Your task to perform on an android device: Open Maps and search for coffee Image 0: 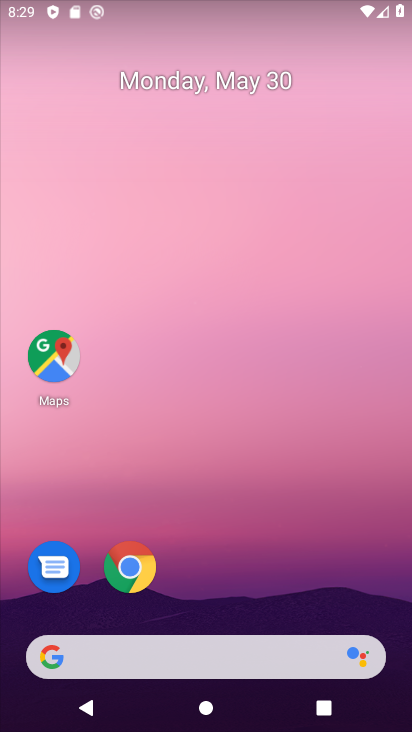
Step 0: click (45, 364)
Your task to perform on an android device: Open Maps and search for coffee Image 1: 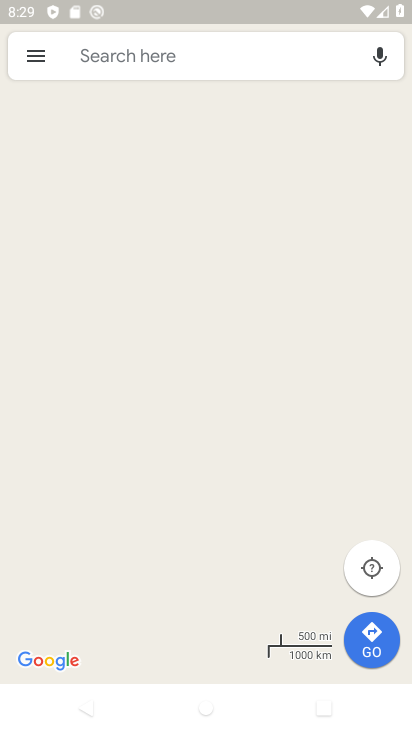
Step 1: click (216, 51)
Your task to perform on an android device: Open Maps and search for coffee Image 2: 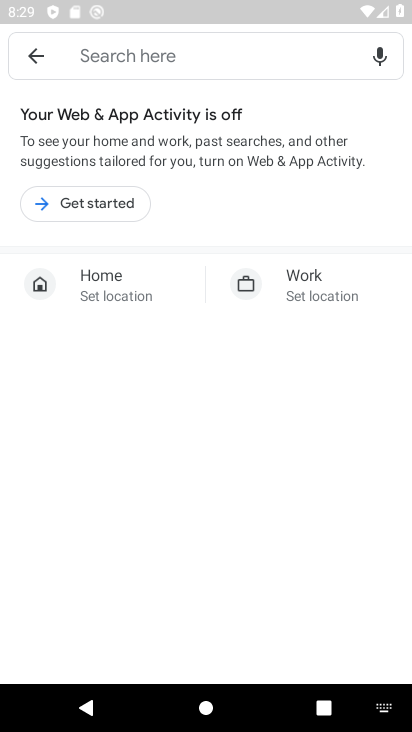
Step 2: click (216, 51)
Your task to perform on an android device: Open Maps and search for coffee Image 3: 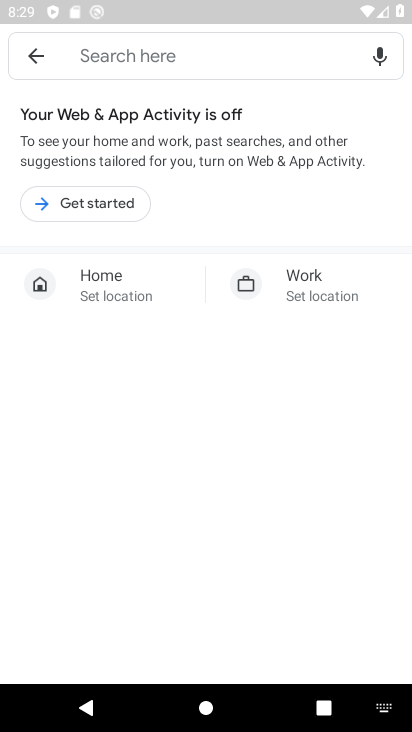
Step 3: type "coffee"
Your task to perform on an android device: Open Maps and search for coffee Image 4: 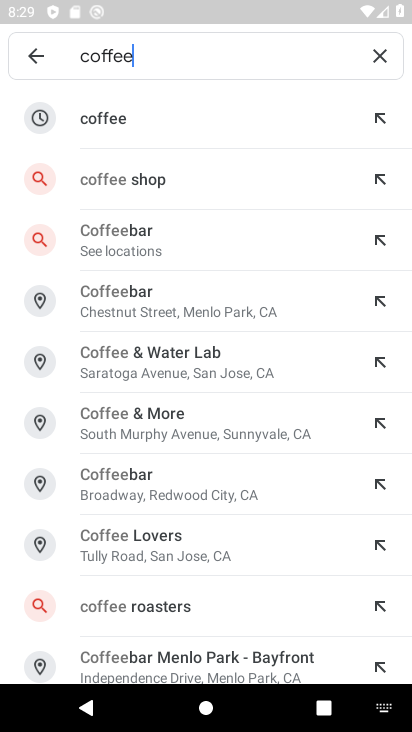
Step 4: click (130, 159)
Your task to perform on an android device: Open Maps and search for coffee Image 5: 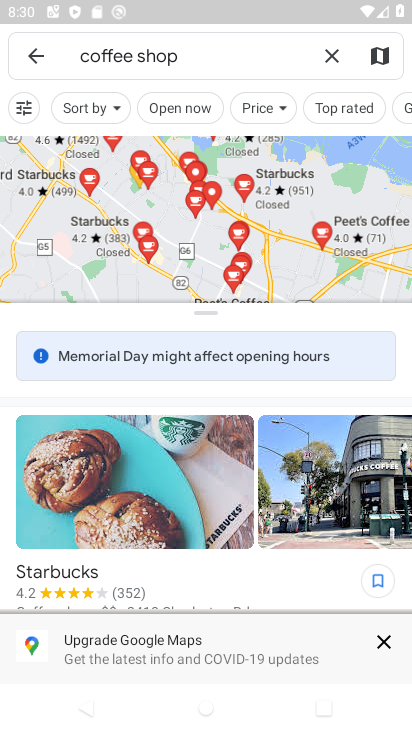
Step 5: task complete